Your task to perform on an android device: Go to internet settings Image 0: 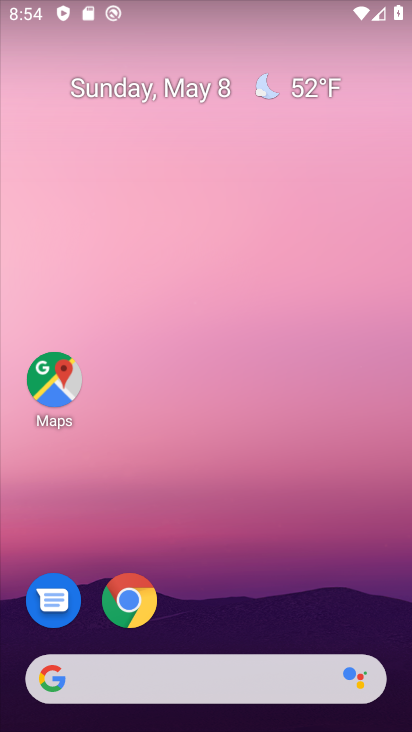
Step 0: drag from (278, 502) to (275, 196)
Your task to perform on an android device: Go to internet settings Image 1: 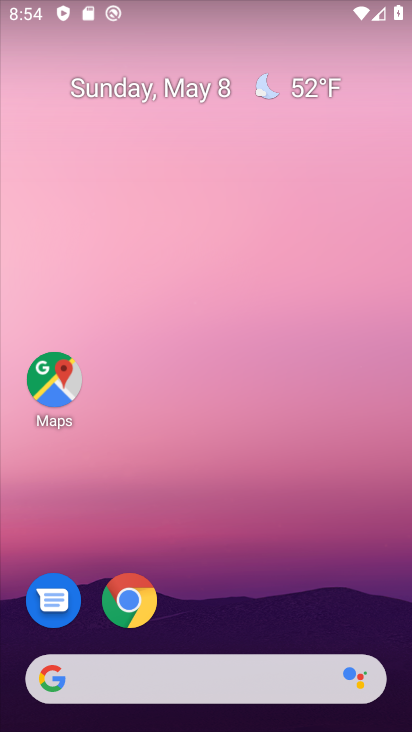
Step 1: drag from (221, 579) to (270, 95)
Your task to perform on an android device: Go to internet settings Image 2: 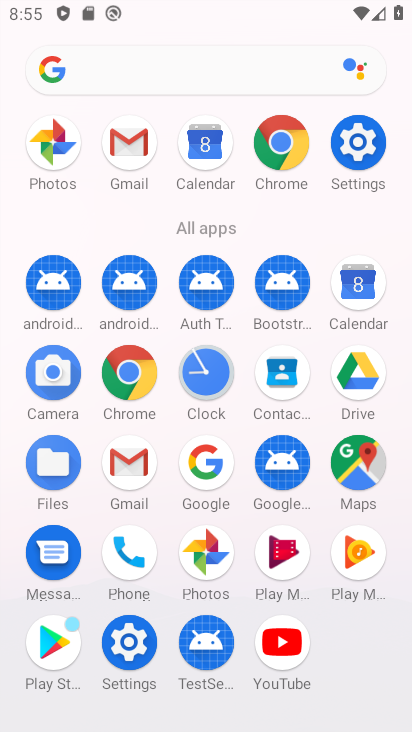
Step 2: click (363, 156)
Your task to perform on an android device: Go to internet settings Image 3: 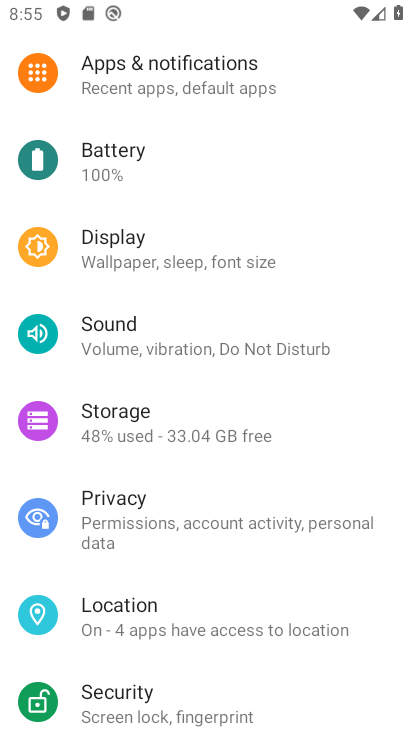
Step 3: drag from (280, 131) to (252, 476)
Your task to perform on an android device: Go to internet settings Image 4: 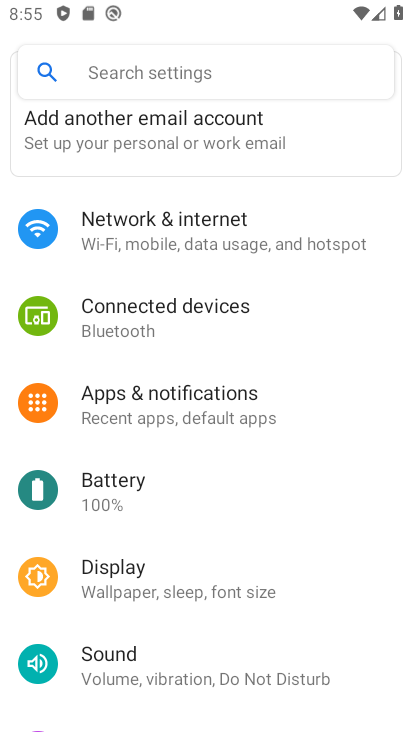
Step 4: click (243, 242)
Your task to perform on an android device: Go to internet settings Image 5: 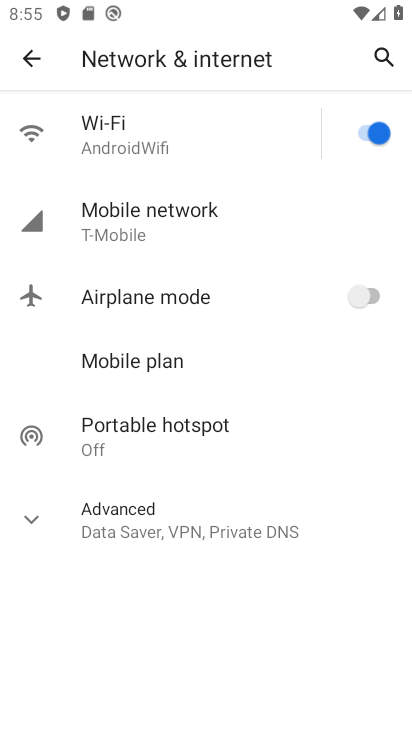
Step 5: task complete